Your task to perform on an android device: Open Youtube and go to the subscriptions tab Image 0: 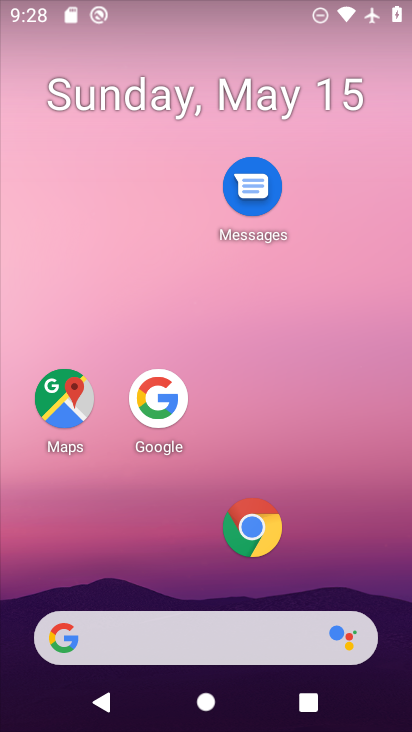
Step 0: drag from (162, 620) to (242, 190)
Your task to perform on an android device: Open Youtube and go to the subscriptions tab Image 1: 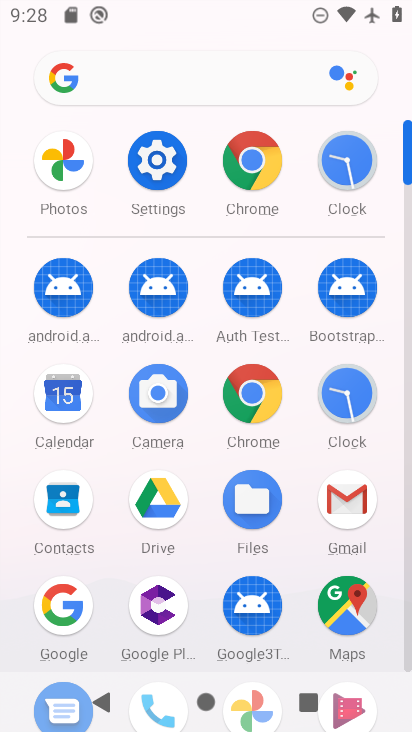
Step 1: drag from (196, 660) to (322, 195)
Your task to perform on an android device: Open Youtube and go to the subscriptions tab Image 2: 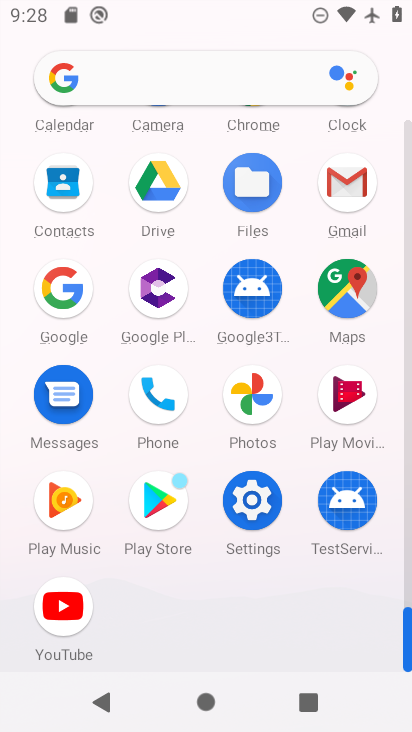
Step 2: click (61, 610)
Your task to perform on an android device: Open Youtube and go to the subscriptions tab Image 3: 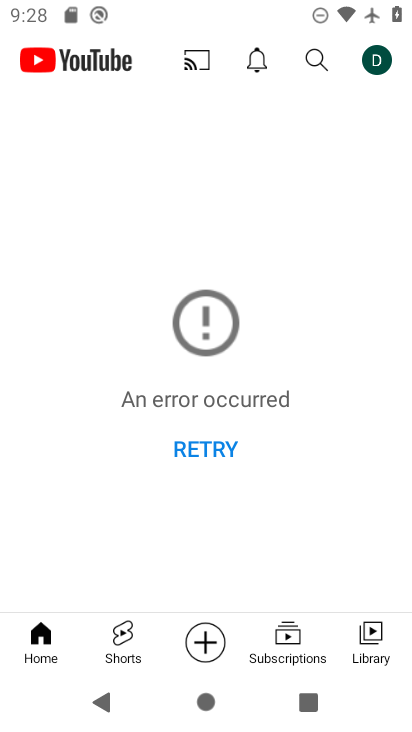
Step 3: click (274, 653)
Your task to perform on an android device: Open Youtube and go to the subscriptions tab Image 4: 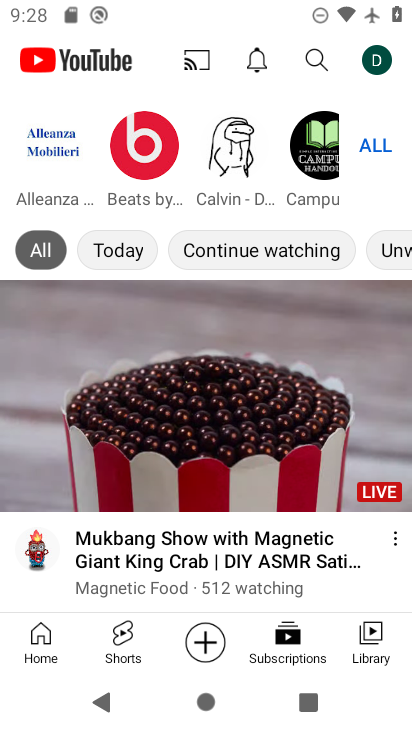
Step 4: task complete